Your task to perform on an android device: Open calendar and show me the fourth week of next month Image 0: 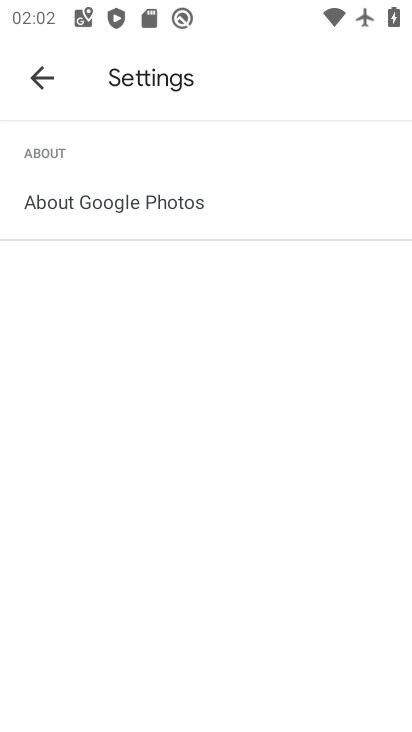
Step 0: press home button
Your task to perform on an android device: Open calendar and show me the fourth week of next month Image 1: 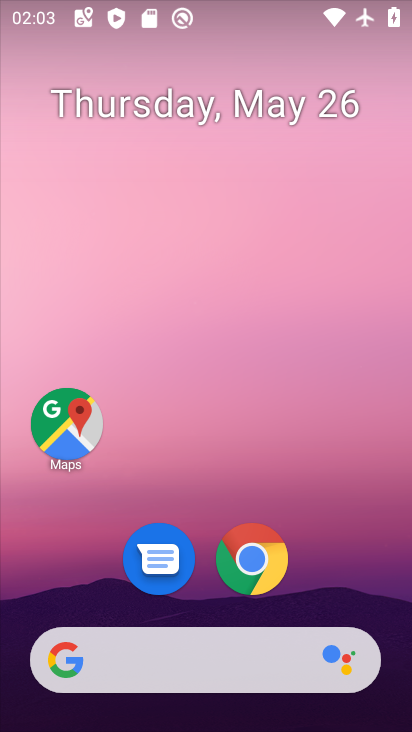
Step 1: drag from (185, 614) to (304, 175)
Your task to perform on an android device: Open calendar and show me the fourth week of next month Image 2: 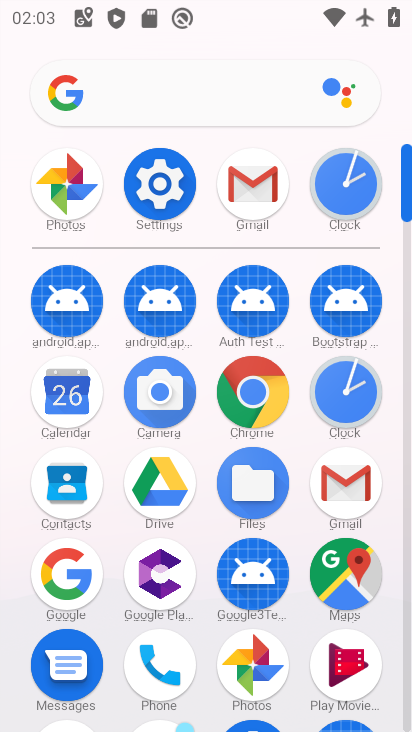
Step 2: click (73, 398)
Your task to perform on an android device: Open calendar and show me the fourth week of next month Image 3: 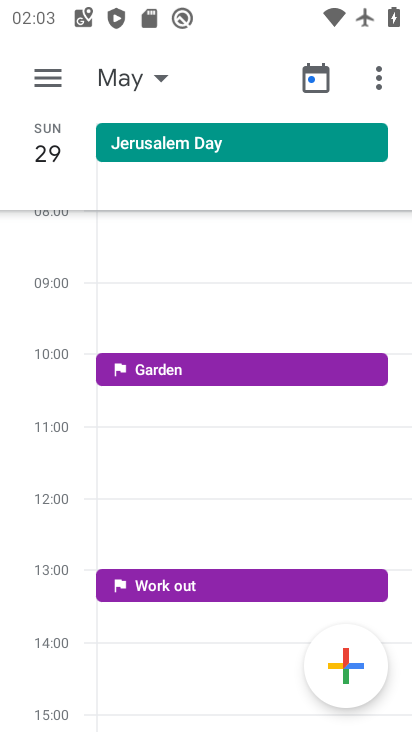
Step 3: click (116, 75)
Your task to perform on an android device: Open calendar and show me the fourth week of next month Image 4: 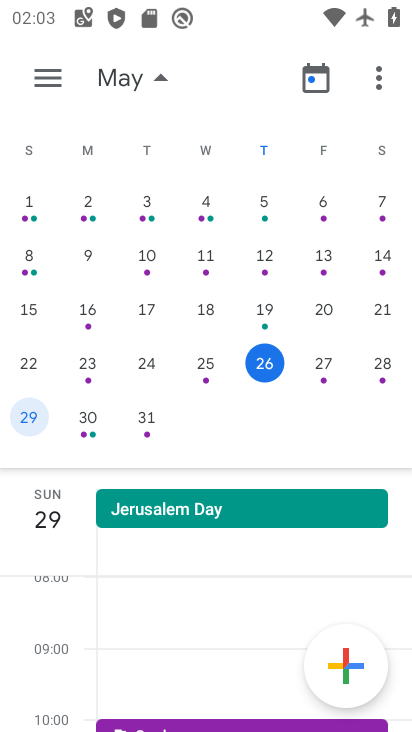
Step 4: drag from (353, 306) to (28, 321)
Your task to perform on an android device: Open calendar and show me the fourth week of next month Image 5: 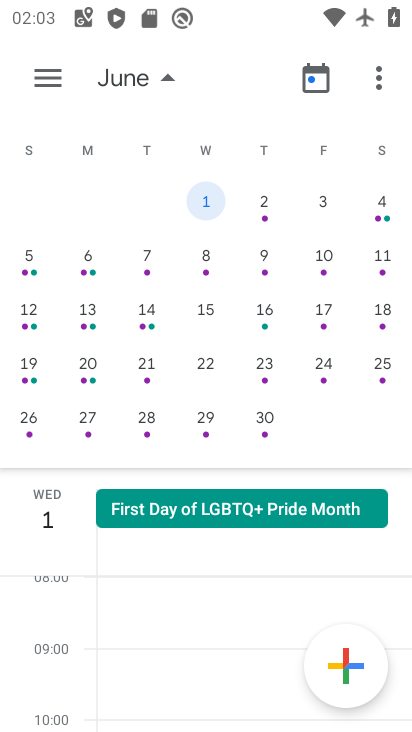
Step 5: click (32, 360)
Your task to perform on an android device: Open calendar and show me the fourth week of next month Image 6: 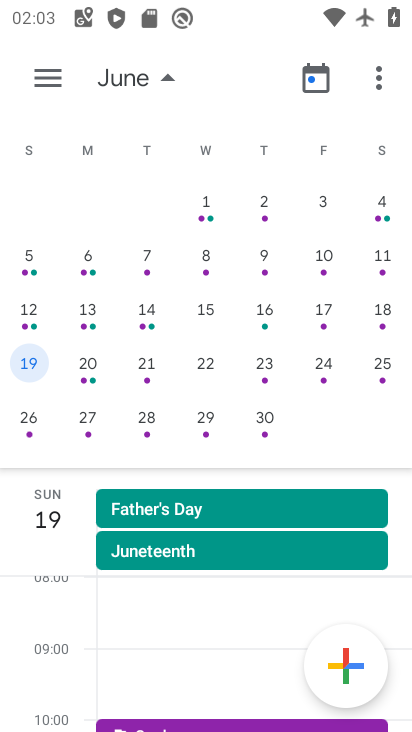
Step 6: click (66, 70)
Your task to perform on an android device: Open calendar and show me the fourth week of next month Image 7: 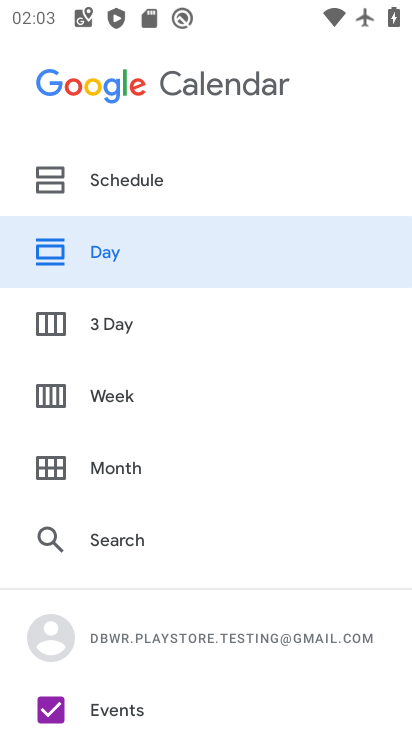
Step 7: click (127, 394)
Your task to perform on an android device: Open calendar and show me the fourth week of next month Image 8: 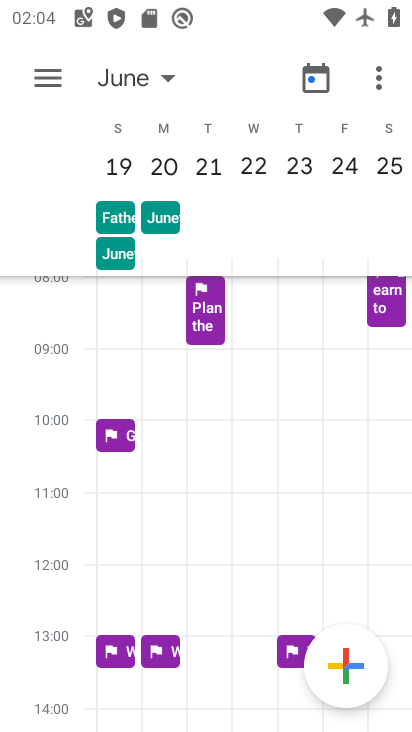
Step 8: task complete